Your task to perform on an android device: install app "Adobe Acrobat Reader: Edit PDF" Image 0: 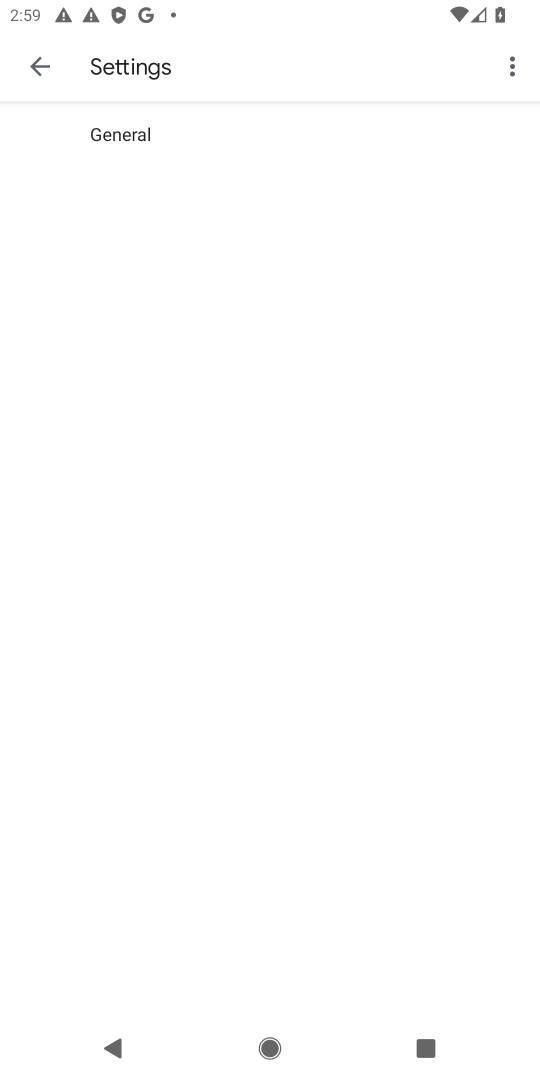
Step 0: press home button
Your task to perform on an android device: install app "Adobe Acrobat Reader: Edit PDF" Image 1: 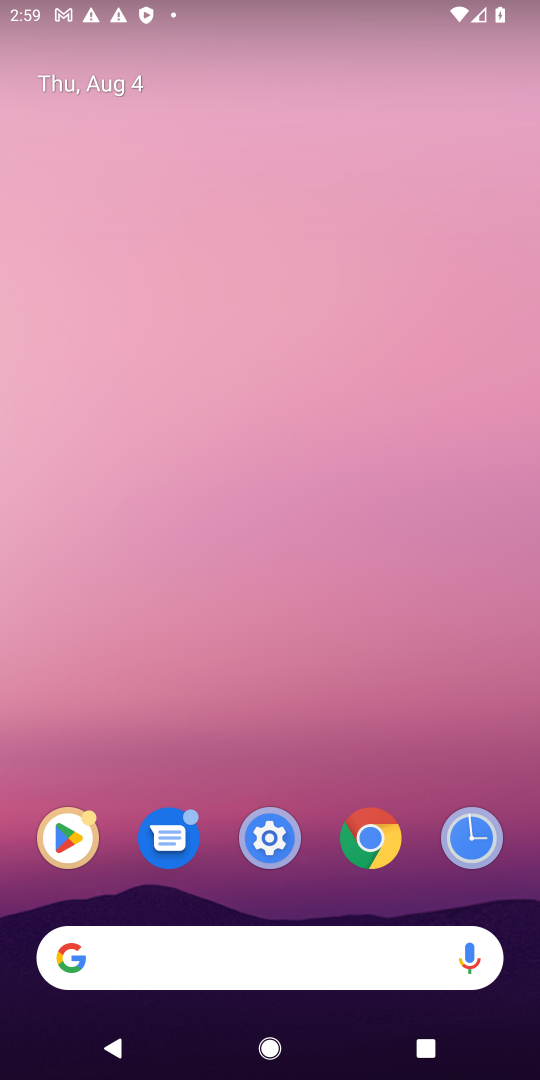
Step 1: click (74, 841)
Your task to perform on an android device: install app "Adobe Acrobat Reader: Edit PDF" Image 2: 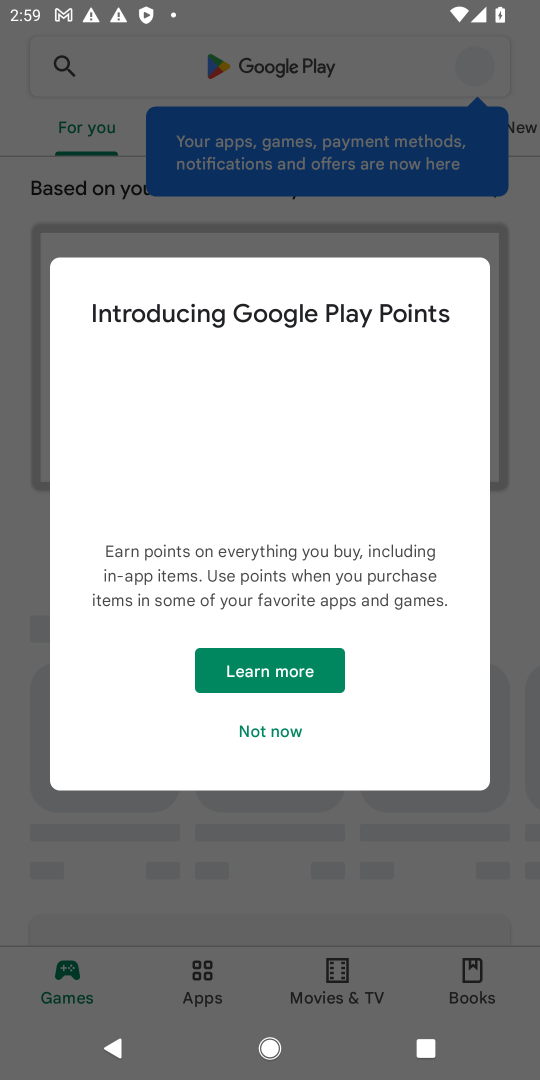
Step 2: click (64, 64)
Your task to perform on an android device: install app "Adobe Acrobat Reader: Edit PDF" Image 3: 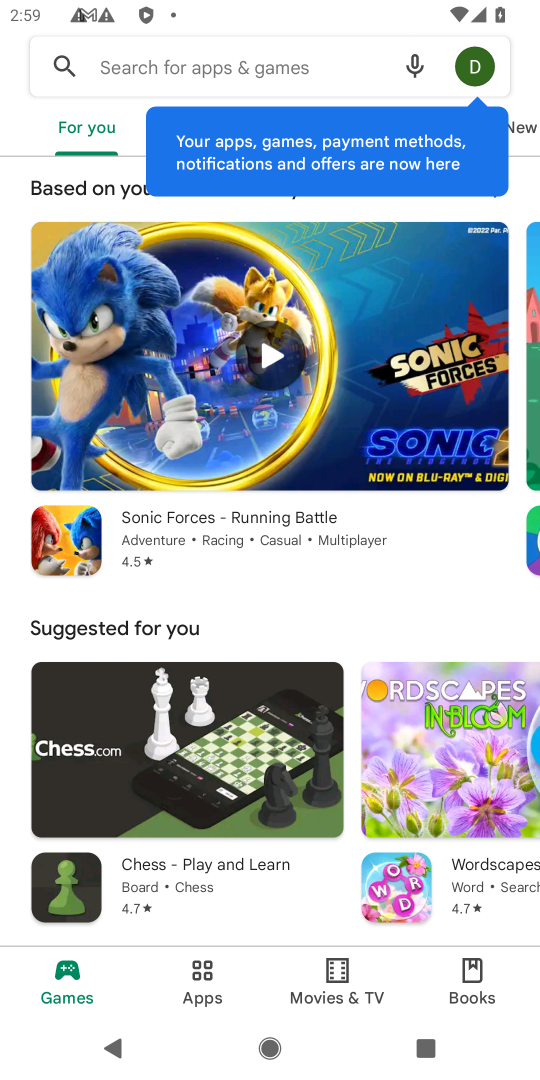
Step 3: click (68, 63)
Your task to perform on an android device: install app "Adobe Acrobat Reader: Edit PDF" Image 4: 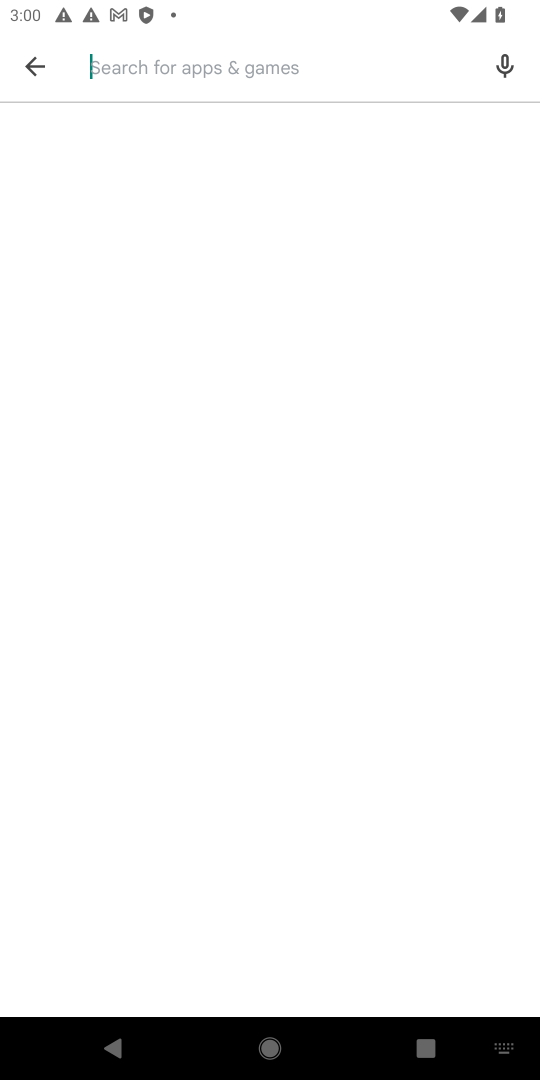
Step 4: type "adobe acrobat"
Your task to perform on an android device: install app "Adobe Acrobat Reader: Edit PDF" Image 5: 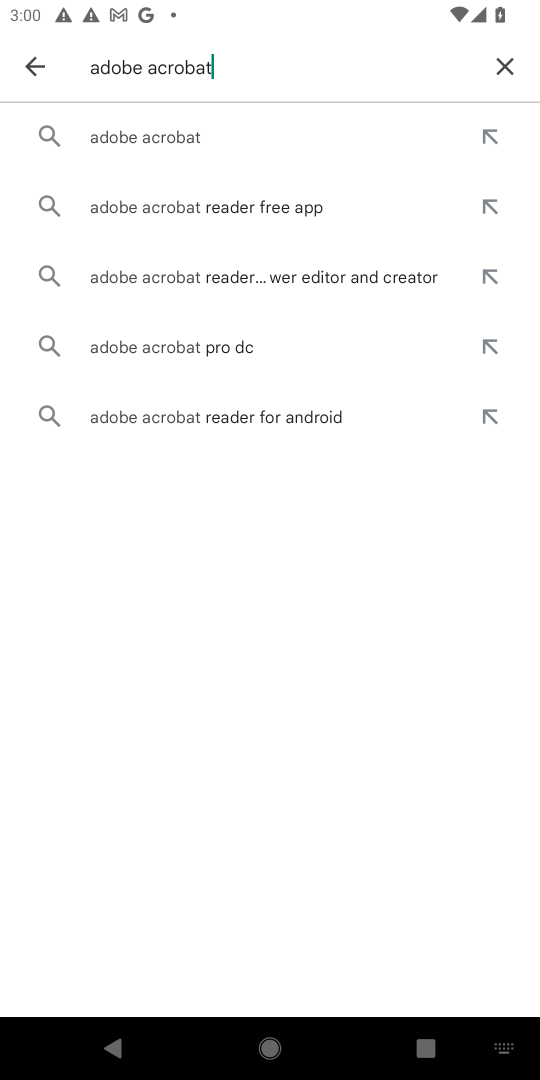
Step 5: click (202, 156)
Your task to perform on an android device: install app "Adobe Acrobat Reader: Edit PDF" Image 6: 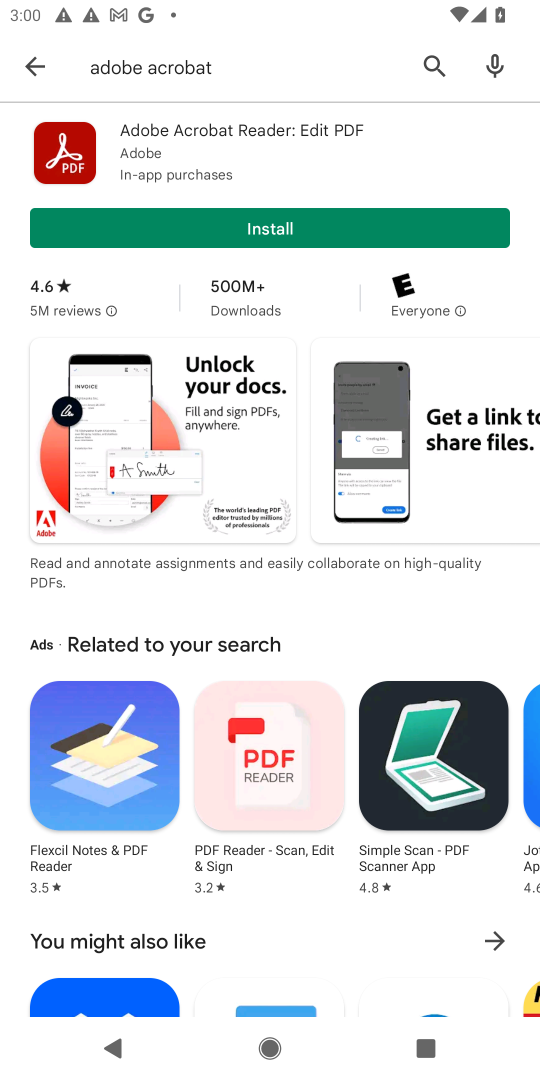
Step 6: click (379, 218)
Your task to perform on an android device: install app "Adobe Acrobat Reader: Edit PDF" Image 7: 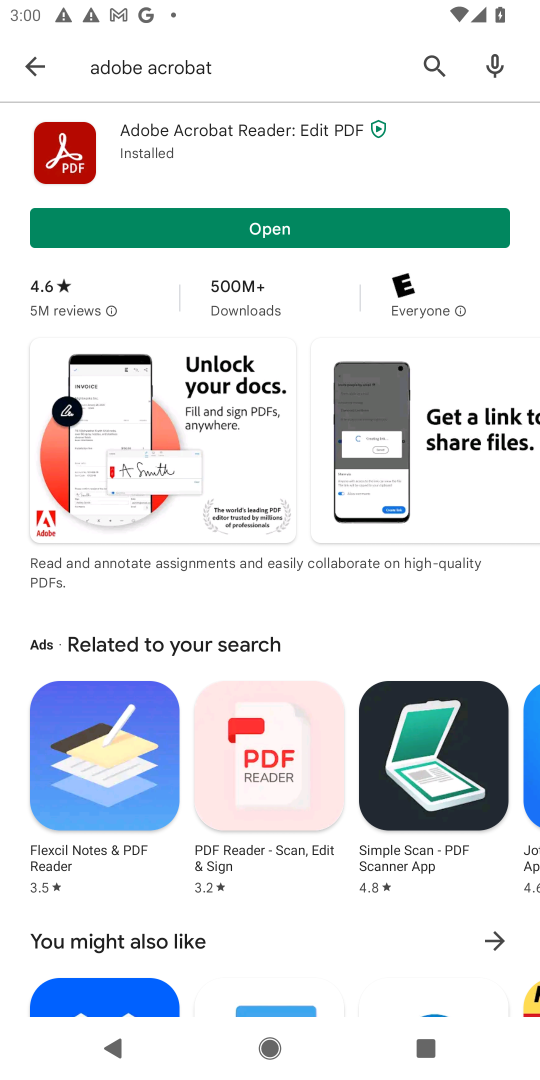
Step 7: task complete